Your task to perform on an android device: Add logitech g pro to the cart on newegg Image 0: 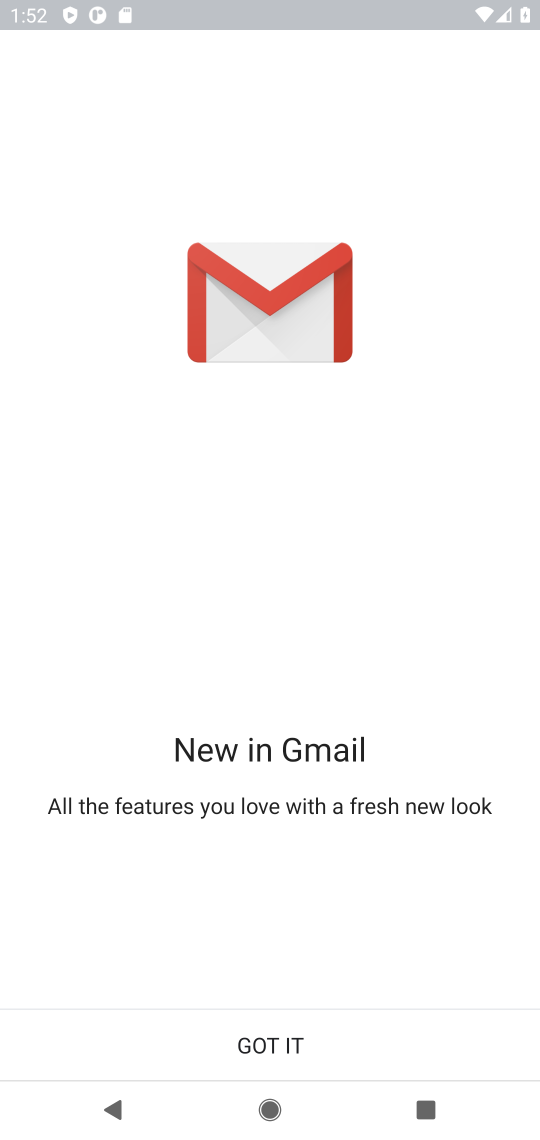
Step 0: press home button
Your task to perform on an android device: Add logitech g pro to the cart on newegg Image 1: 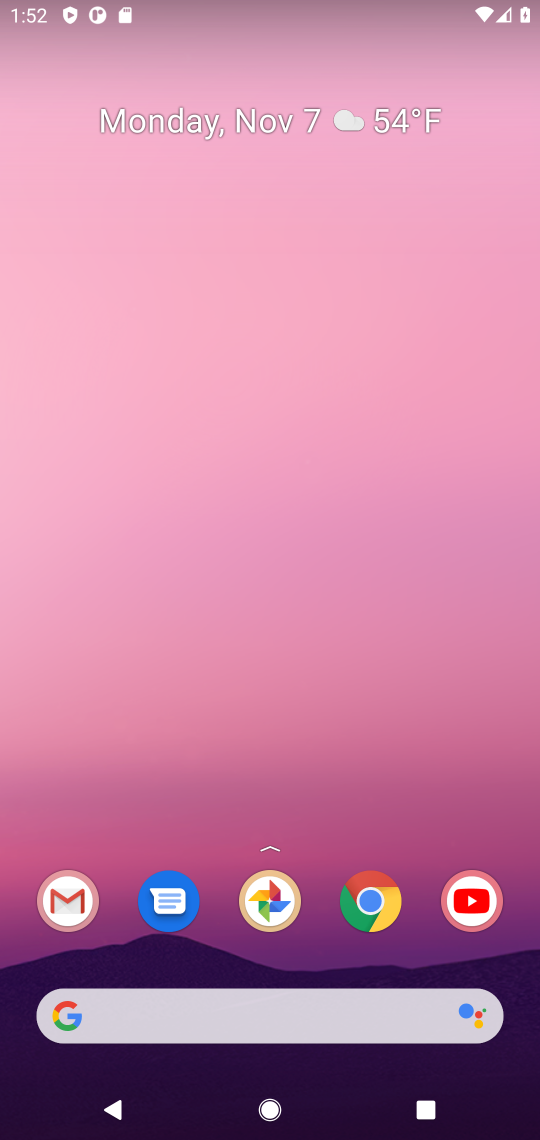
Step 1: click (358, 902)
Your task to perform on an android device: Add logitech g pro to the cart on newegg Image 2: 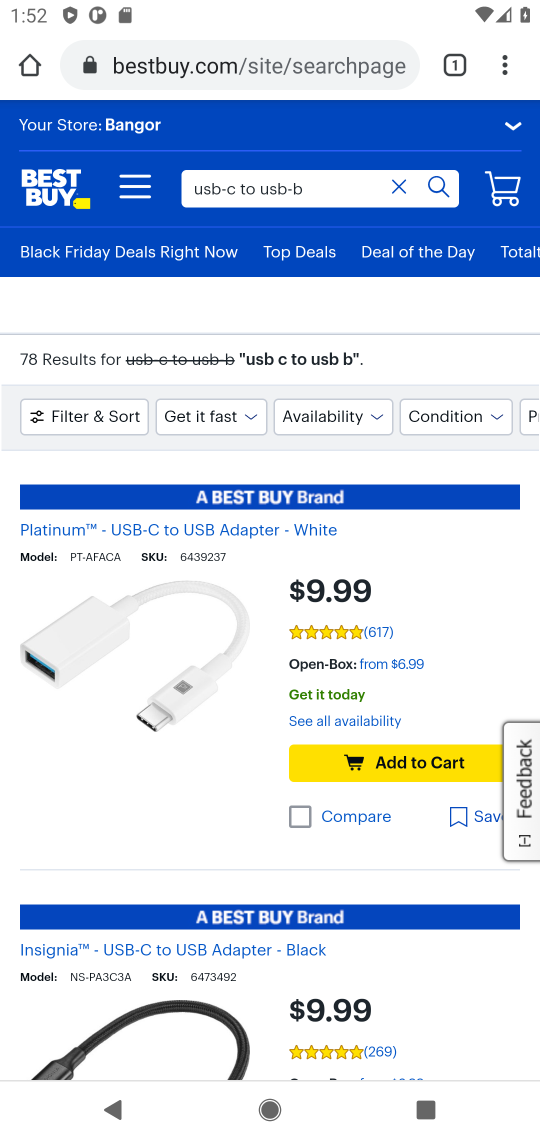
Step 2: click (209, 73)
Your task to perform on an android device: Add logitech g pro to the cart on newegg Image 3: 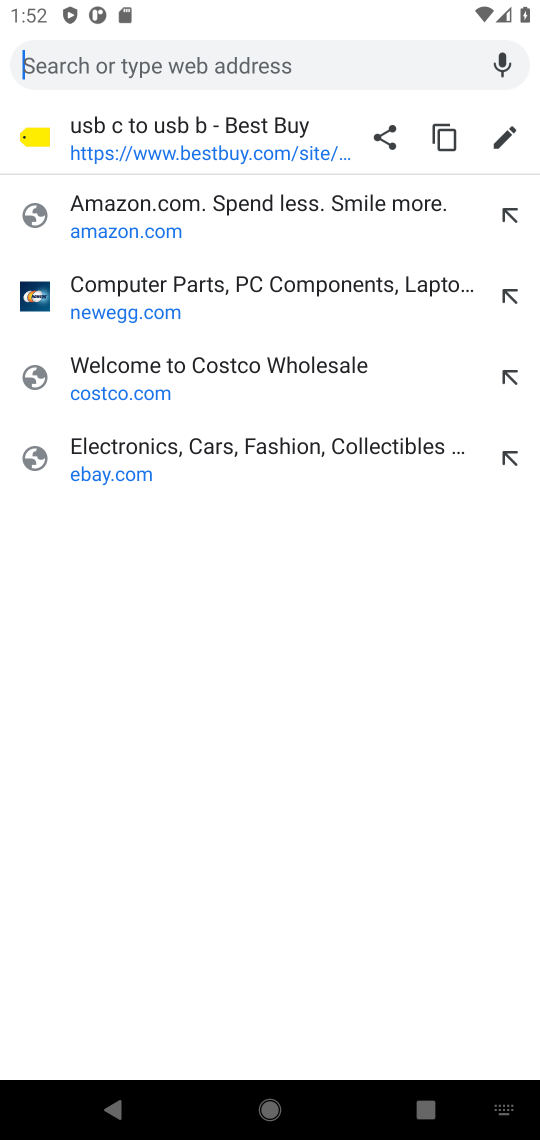
Step 3: click (135, 311)
Your task to perform on an android device: Add logitech g pro to the cart on newegg Image 4: 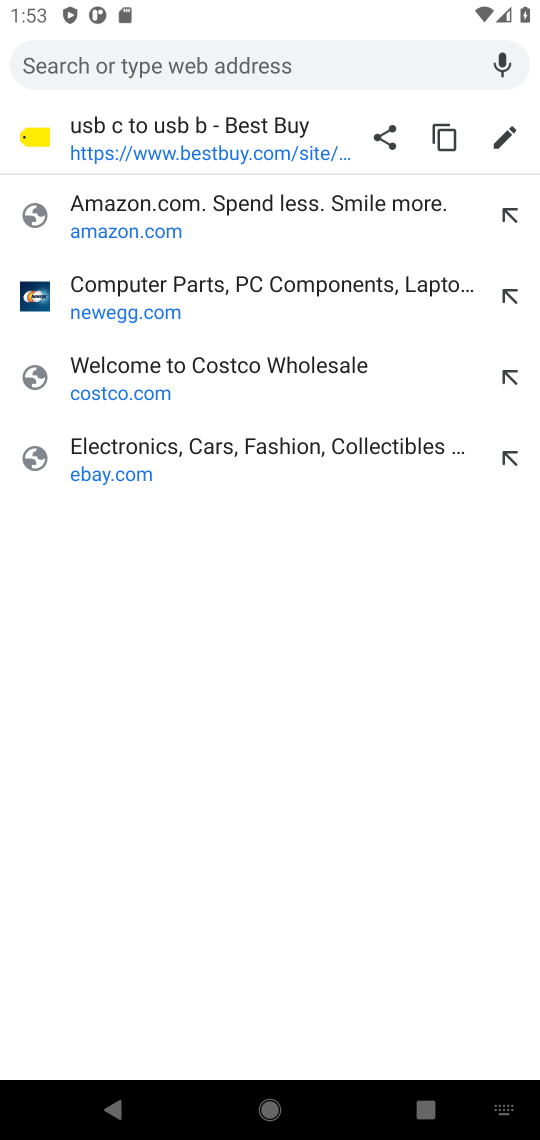
Step 4: click (101, 317)
Your task to perform on an android device: Add logitech g pro to the cart on newegg Image 5: 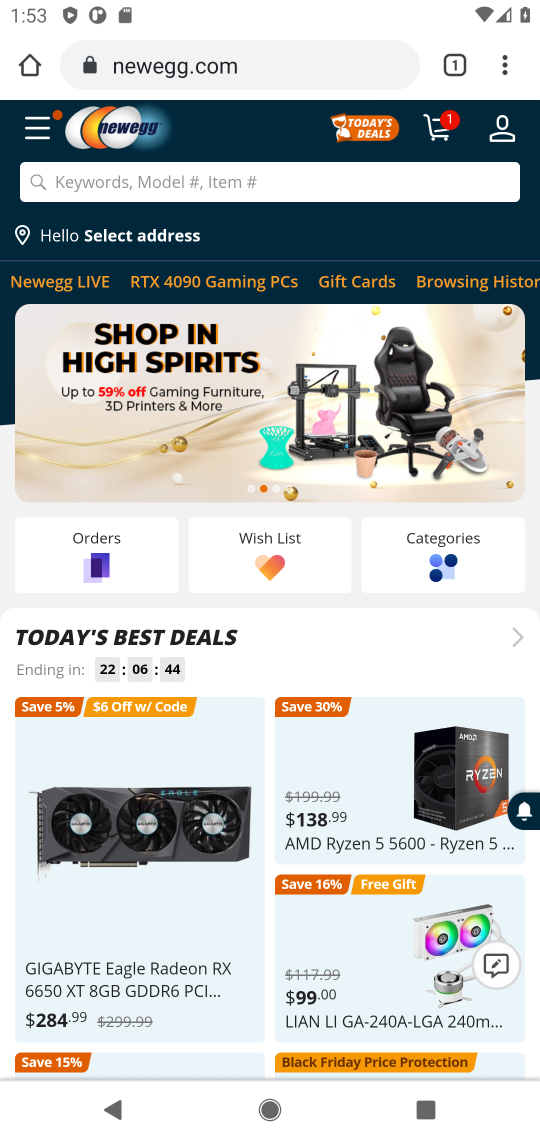
Step 5: click (78, 183)
Your task to perform on an android device: Add logitech g pro to the cart on newegg Image 6: 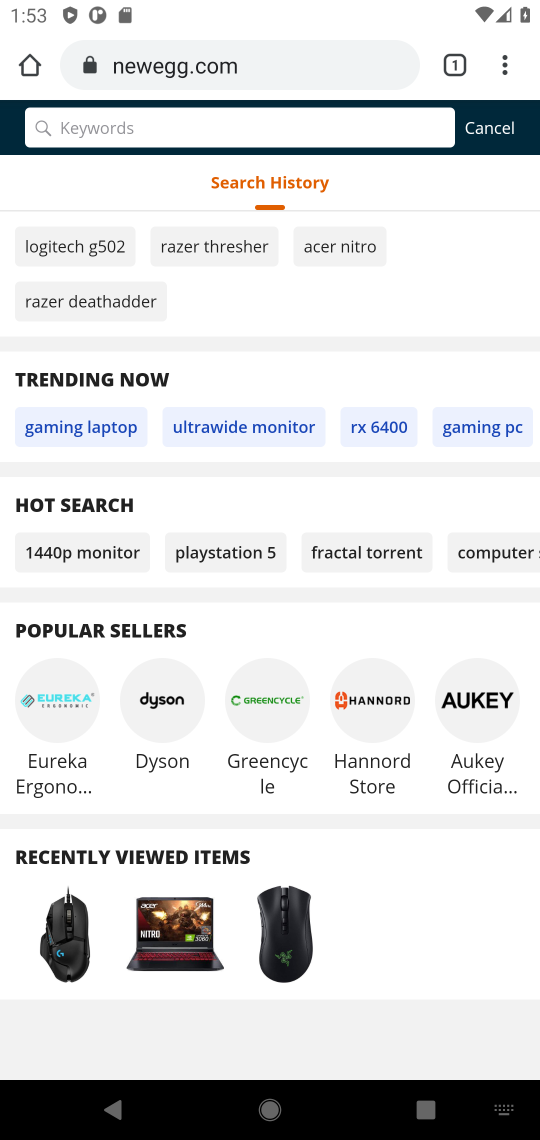
Step 6: type "logitech g pro"
Your task to perform on an android device: Add logitech g pro to the cart on newegg Image 7: 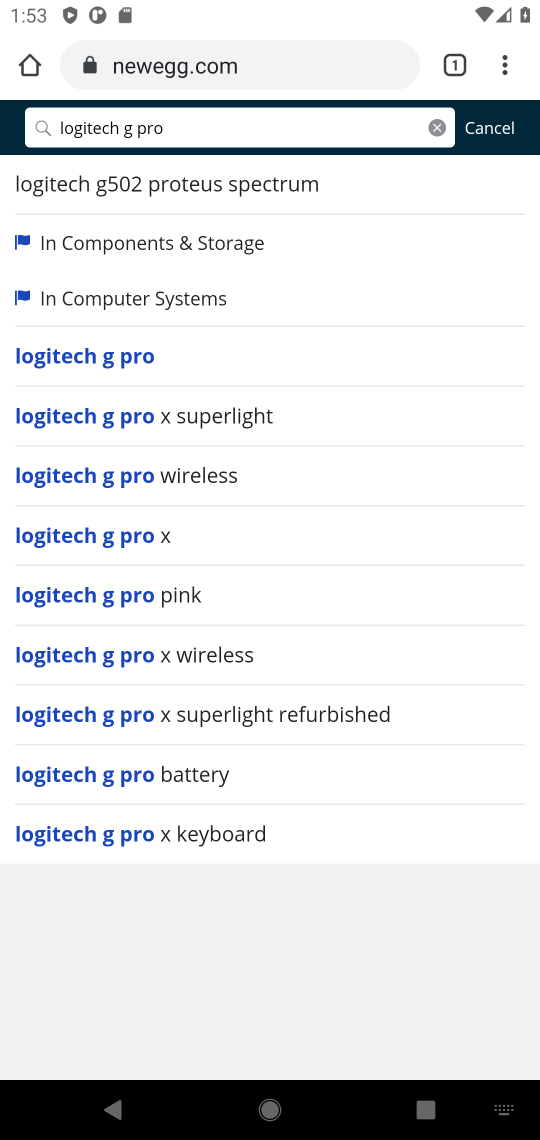
Step 7: click (109, 362)
Your task to perform on an android device: Add logitech g pro to the cart on newegg Image 8: 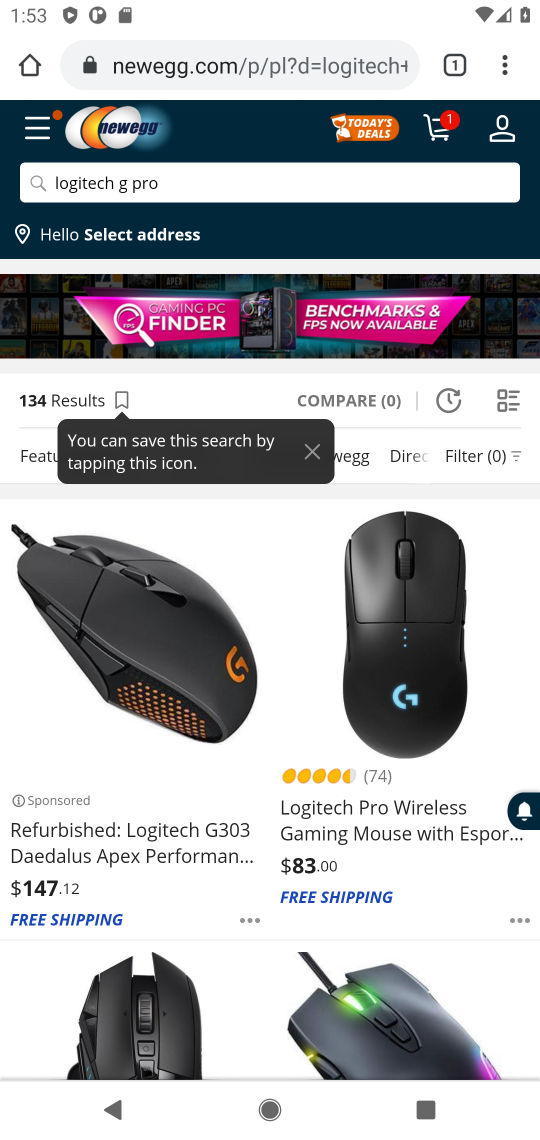
Step 8: drag from (235, 845) to (236, 403)
Your task to perform on an android device: Add logitech g pro to the cart on newegg Image 9: 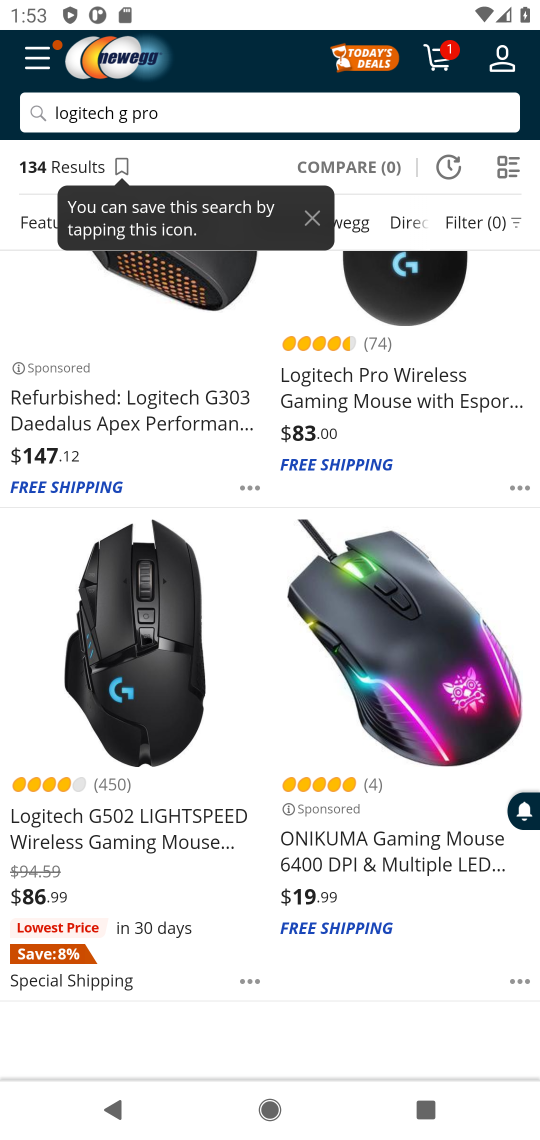
Step 9: drag from (254, 936) to (284, 509)
Your task to perform on an android device: Add logitech g pro to the cart on newegg Image 10: 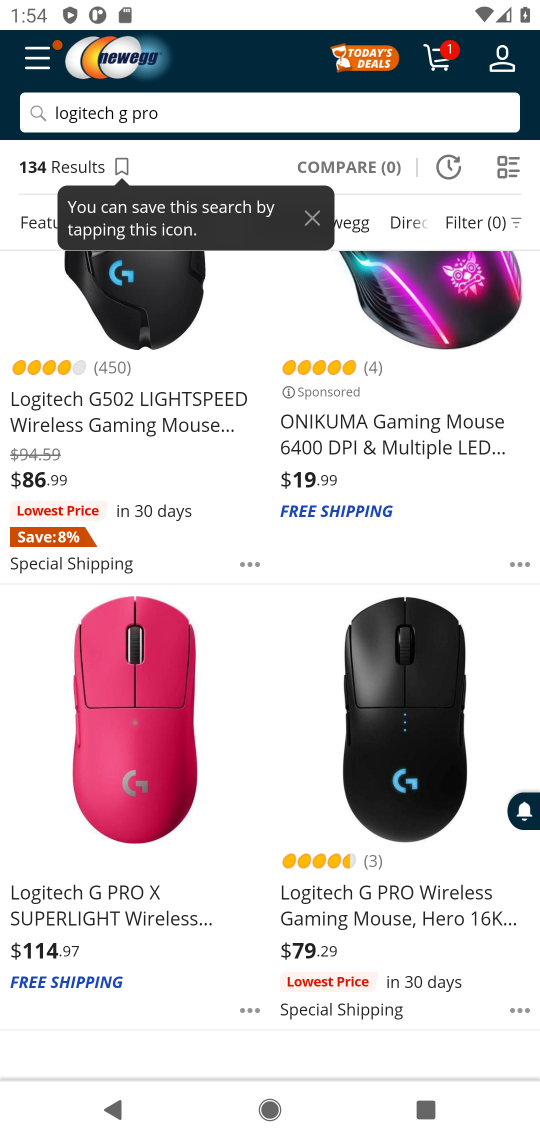
Step 10: drag from (259, 726) to (268, 524)
Your task to perform on an android device: Add logitech g pro to the cart on newegg Image 11: 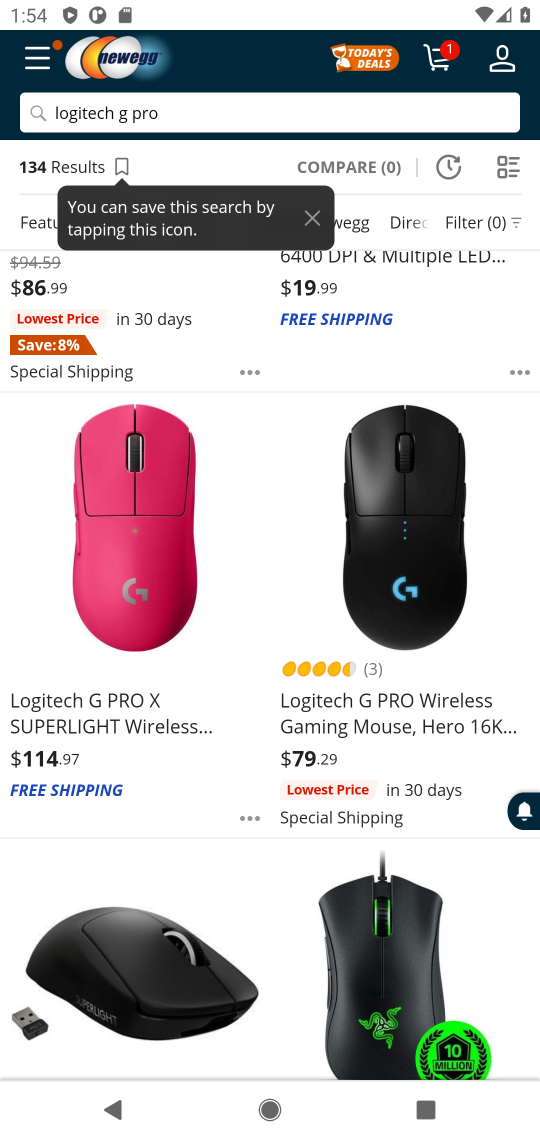
Step 11: click (121, 595)
Your task to perform on an android device: Add logitech g pro to the cart on newegg Image 12: 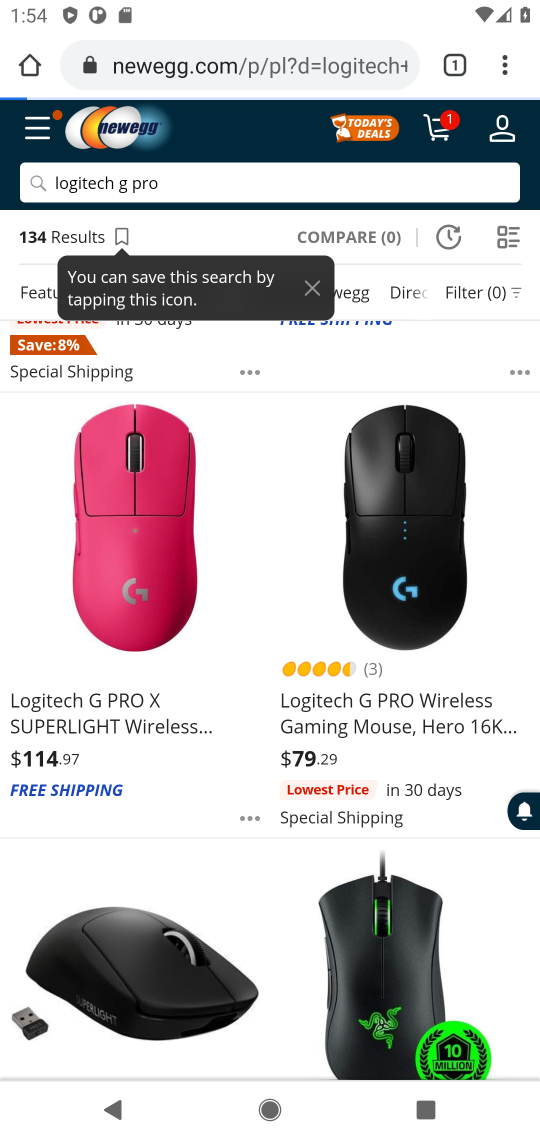
Step 12: click (117, 594)
Your task to perform on an android device: Add logitech g pro to the cart on newegg Image 13: 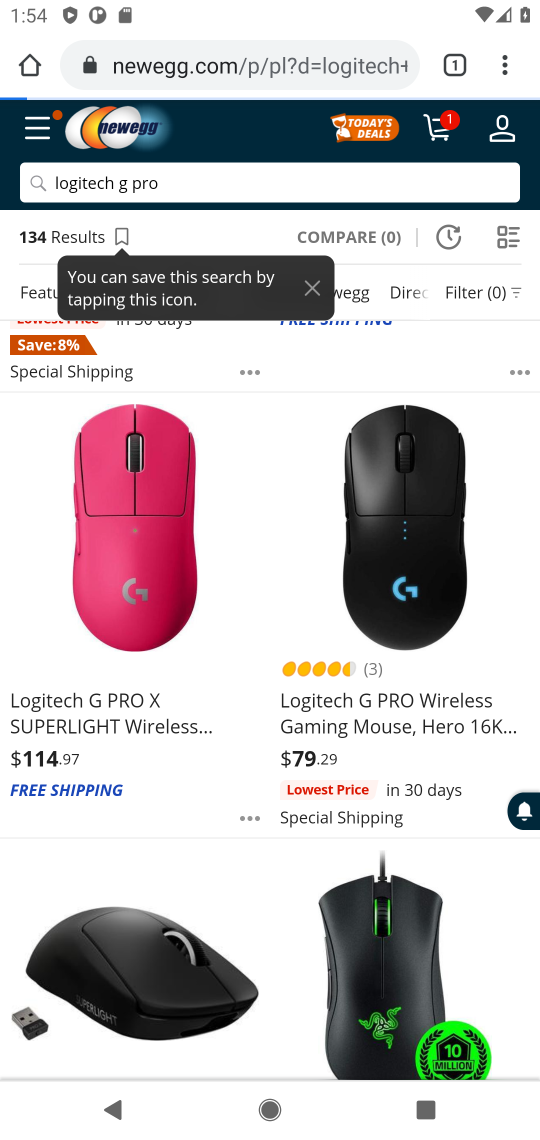
Step 13: click (71, 634)
Your task to perform on an android device: Add logitech g pro to the cart on newegg Image 14: 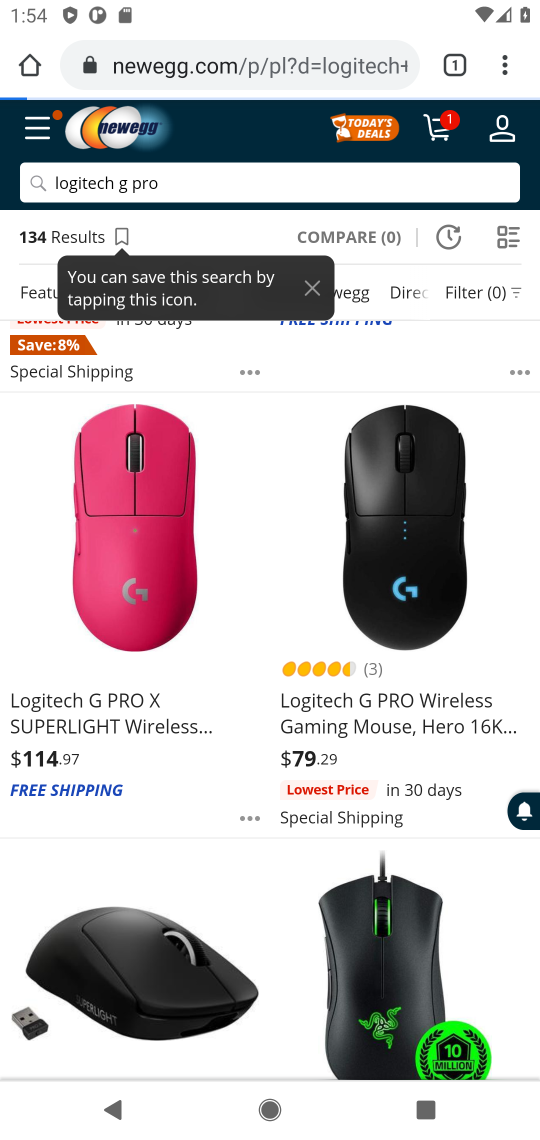
Step 14: drag from (122, 575) to (149, 416)
Your task to perform on an android device: Add logitech g pro to the cart on newegg Image 15: 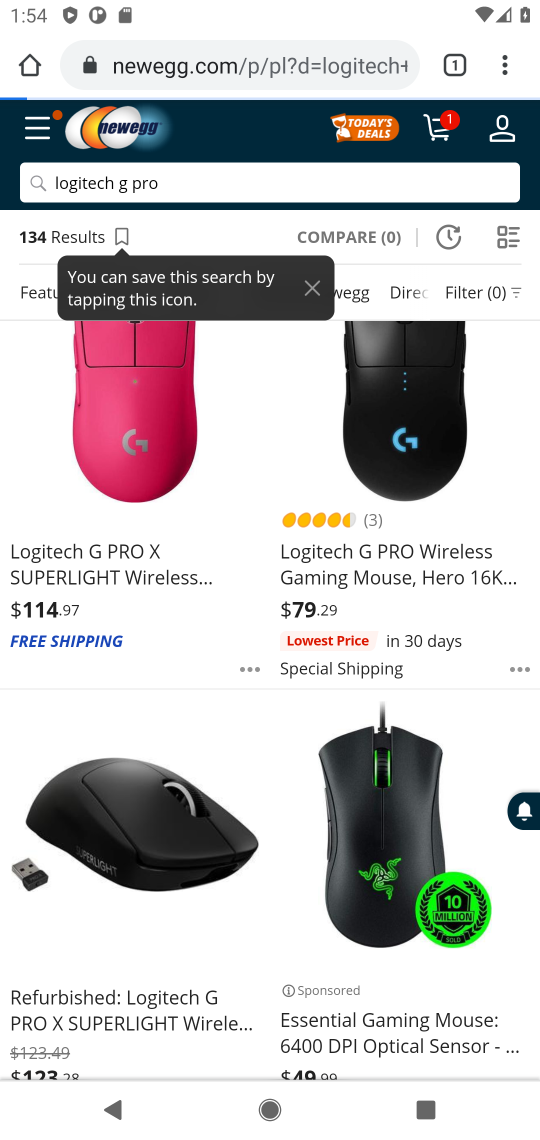
Step 15: click (81, 524)
Your task to perform on an android device: Add logitech g pro to the cart on newegg Image 16: 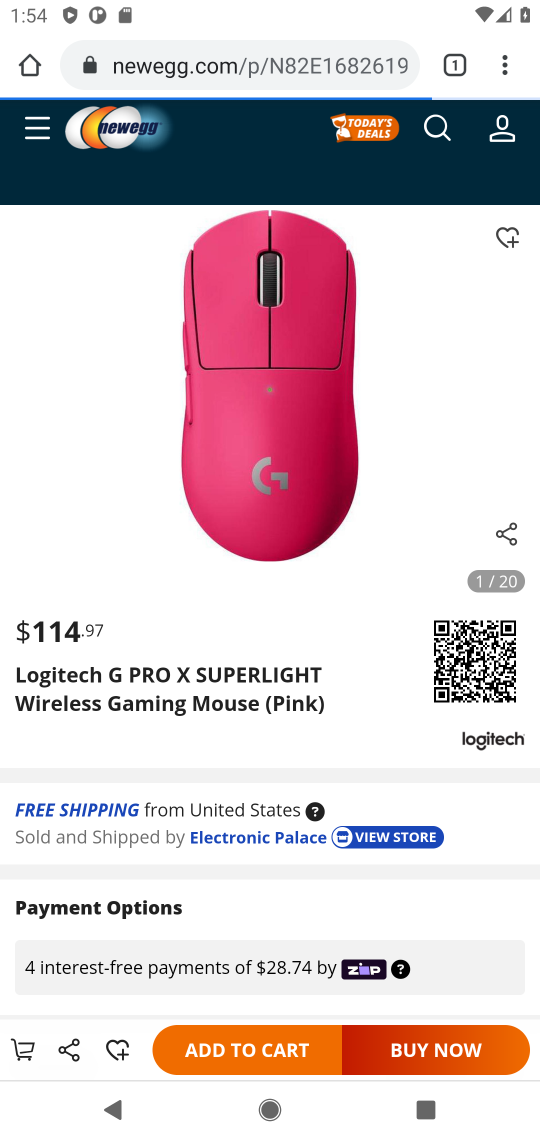
Step 16: click (66, 550)
Your task to perform on an android device: Add logitech g pro to the cart on newegg Image 17: 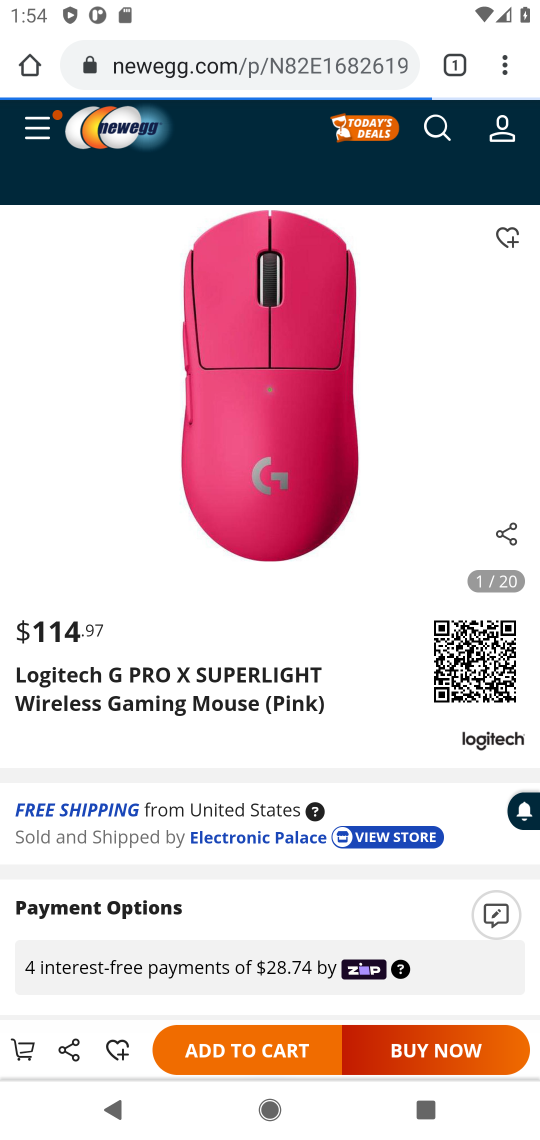
Step 17: click (249, 1042)
Your task to perform on an android device: Add logitech g pro to the cart on newegg Image 18: 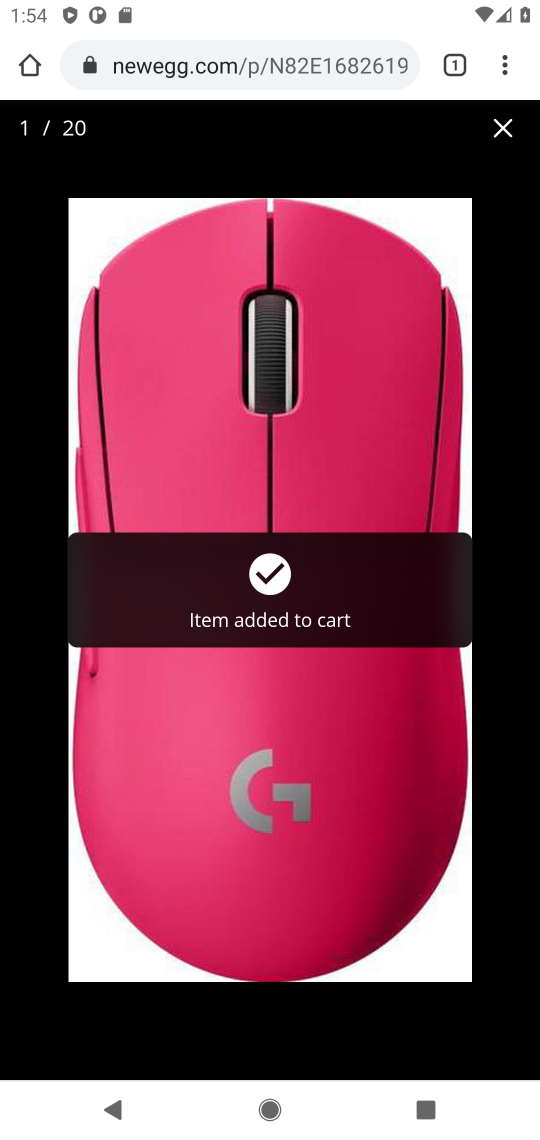
Step 18: click (507, 127)
Your task to perform on an android device: Add logitech g pro to the cart on newegg Image 19: 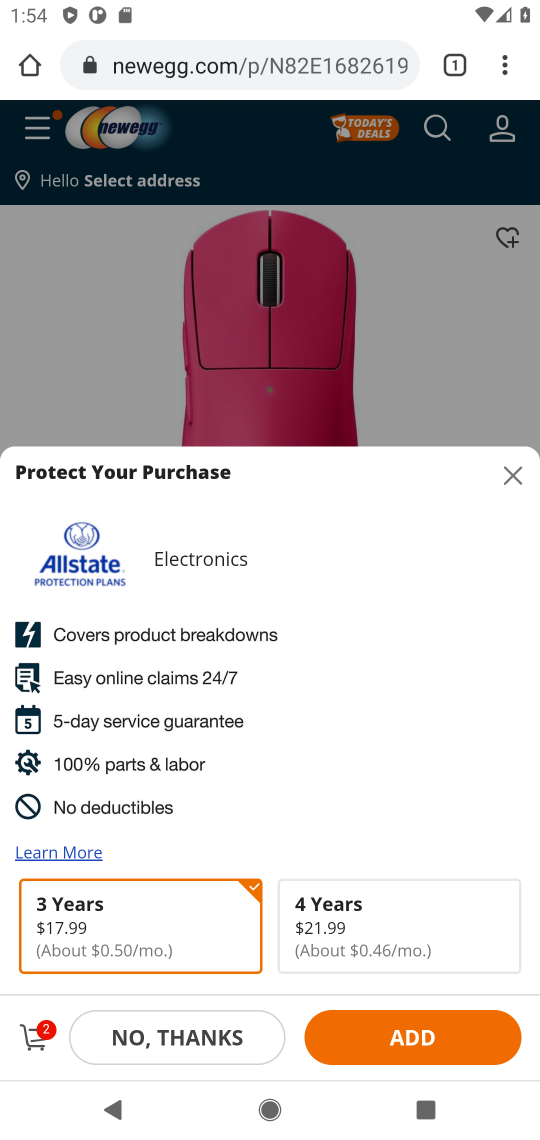
Step 19: task complete